Your task to perform on an android device: toggle notification dots Image 0: 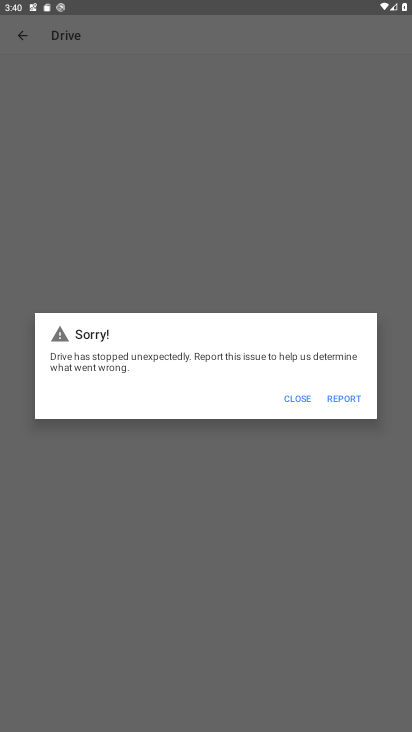
Step 0: press home button
Your task to perform on an android device: toggle notification dots Image 1: 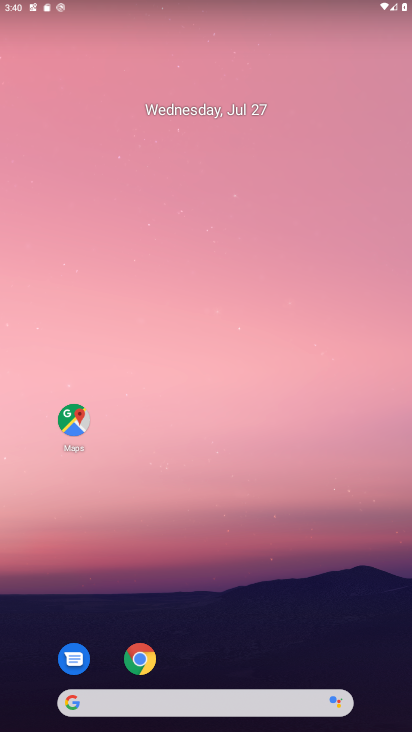
Step 1: drag from (318, 574) to (171, 16)
Your task to perform on an android device: toggle notification dots Image 2: 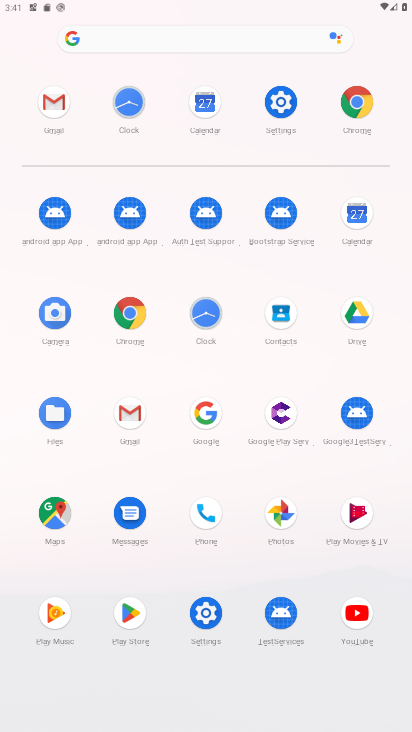
Step 2: click (279, 81)
Your task to perform on an android device: toggle notification dots Image 3: 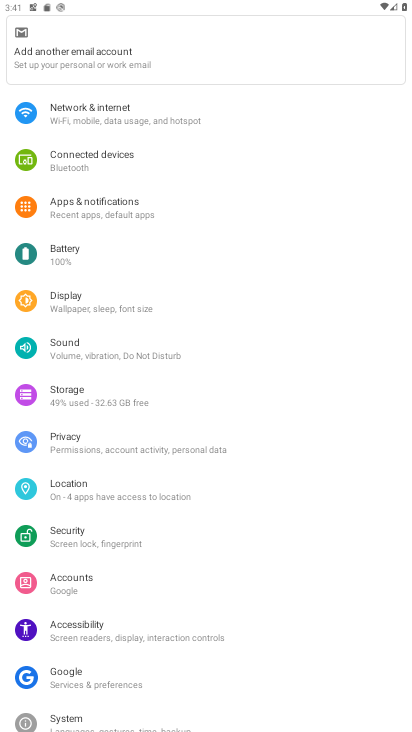
Step 3: click (125, 196)
Your task to perform on an android device: toggle notification dots Image 4: 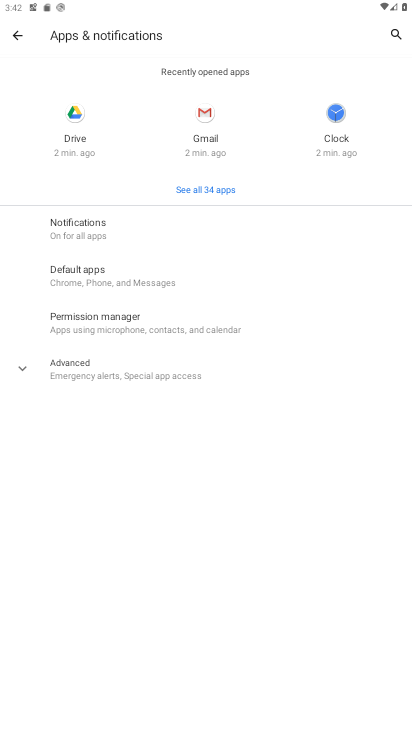
Step 4: click (42, 372)
Your task to perform on an android device: toggle notification dots Image 5: 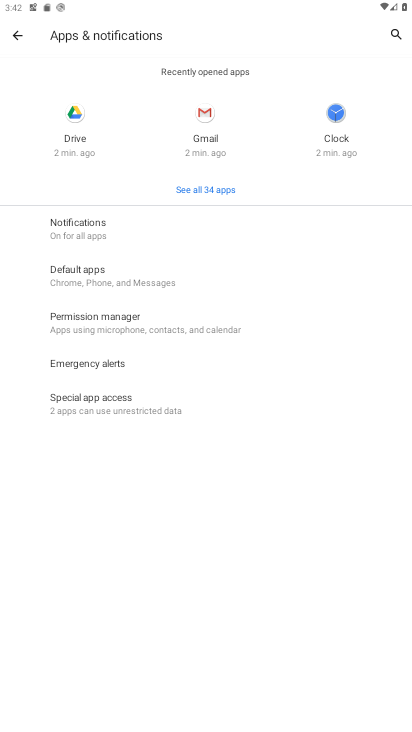
Step 5: click (67, 231)
Your task to perform on an android device: toggle notification dots Image 6: 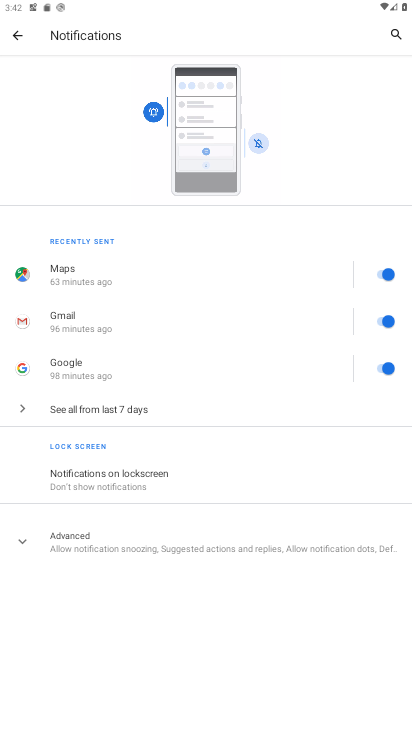
Step 6: click (86, 540)
Your task to perform on an android device: toggle notification dots Image 7: 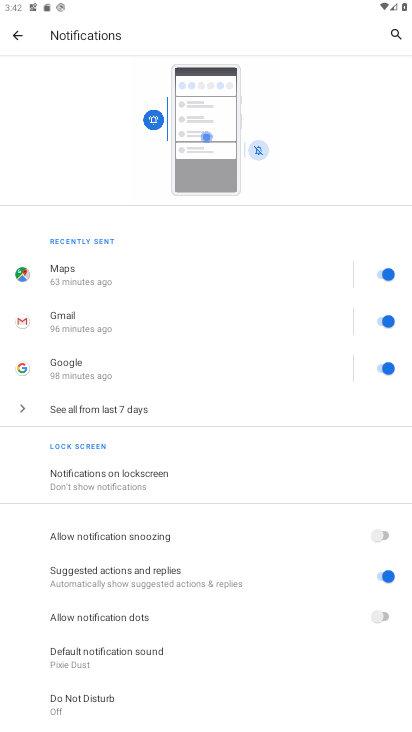
Step 7: drag from (126, 587) to (110, 340)
Your task to perform on an android device: toggle notification dots Image 8: 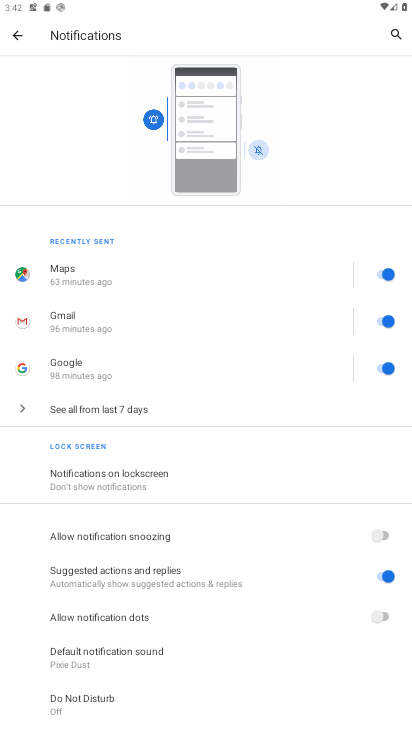
Step 8: click (379, 612)
Your task to perform on an android device: toggle notification dots Image 9: 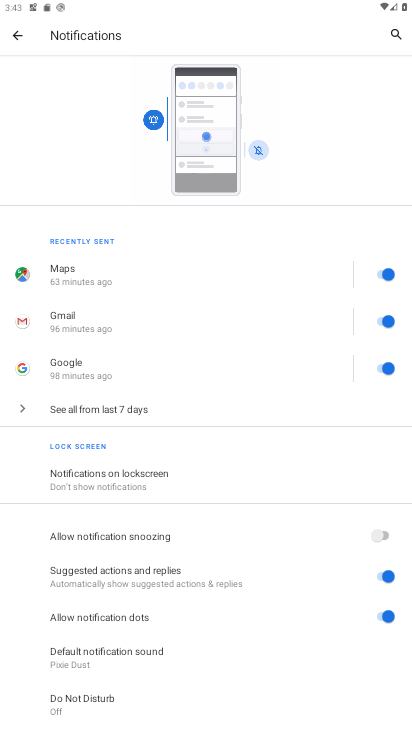
Step 9: task complete